Your task to perform on an android device: Search for seafood restaurants on Google Maps Image 0: 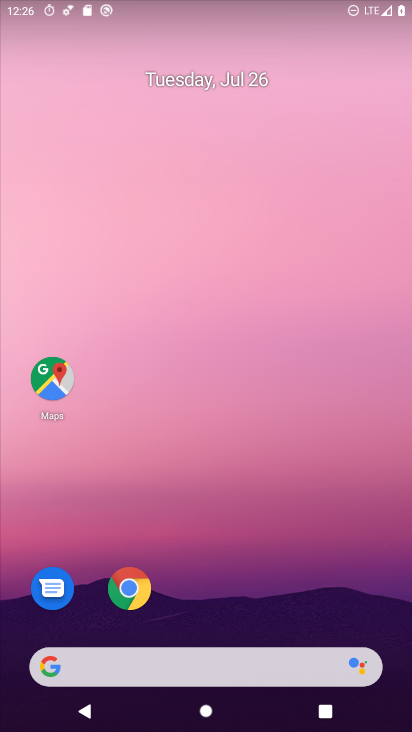
Step 0: drag from (281, 587) to (181, 92)
Your task to perform on an android device: Search for seafood restaurants on Google Maps Image 1: 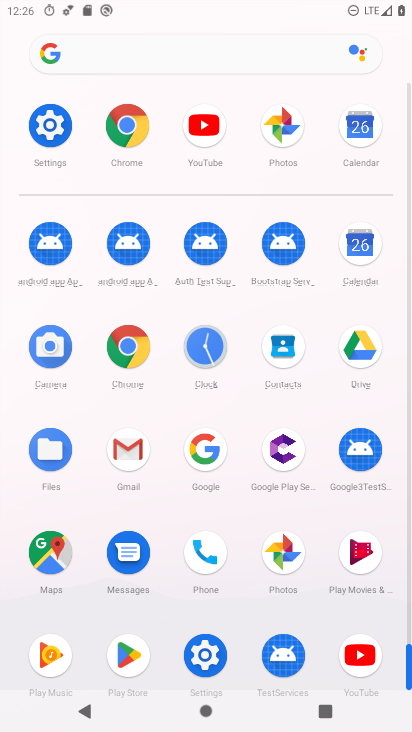
Step 1: click (58, 561)
Your task to perform on an android device: Search for seafood restaurants on Google Maps Image 2: 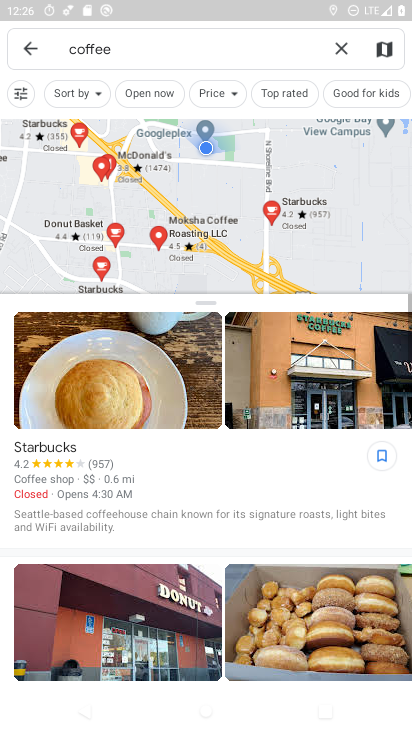
Step 2: click (350, 50)
Your task to perform on an android device: Search for seafood restaurants on Google Maps Image 3: 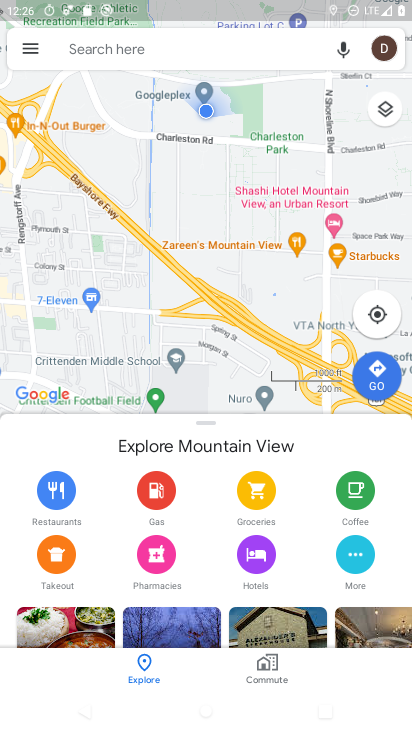
Step 3: click (157, 43)
Your task to perform on an android device: Search for seafood restaurants on Google Maps Image 4: 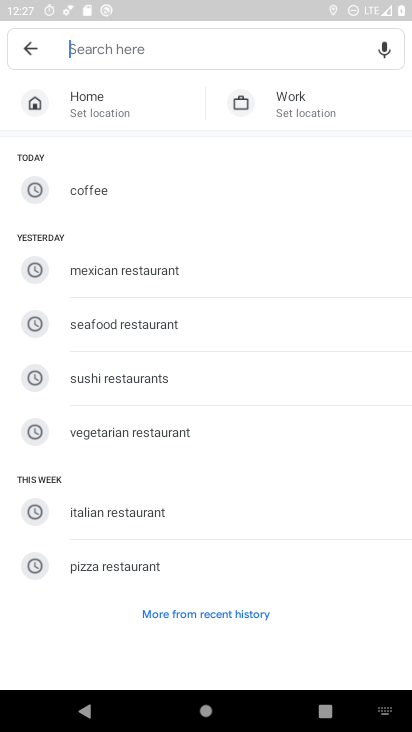
Step 4: type "seafood restaurants "
Your task to perform on an android device: Search for seafood restaurants on Google Maps Image 5: 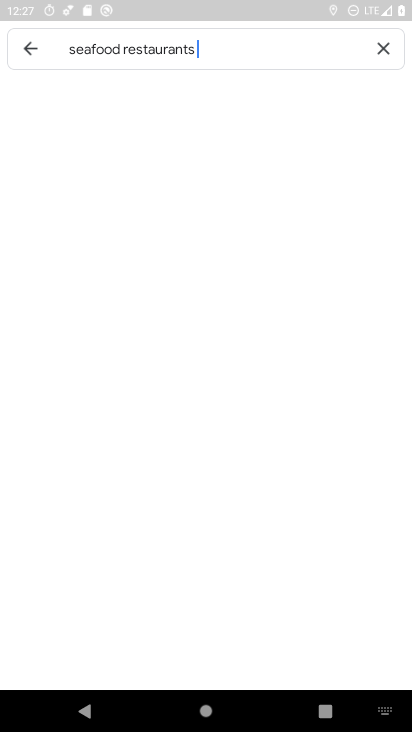
Step 5: type ""
Your task to perform on an android device: Search for seafood restaurants on Google Maps Image 6: 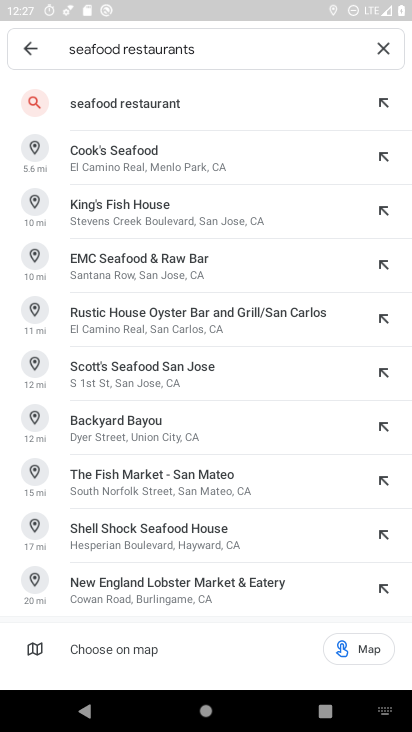
Step 6: click (206, 112)
Your task to perform on an android device: Search for seafood restaurants on Google Maps Image 7: 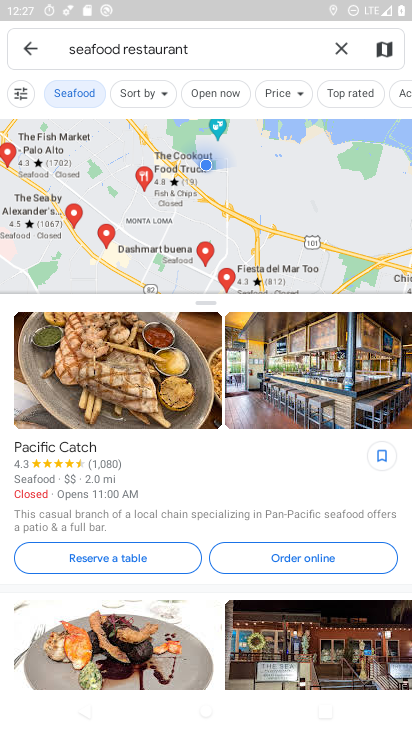
Step 7: task complete